Your task to perform on an android device: check out phone information Image 0: 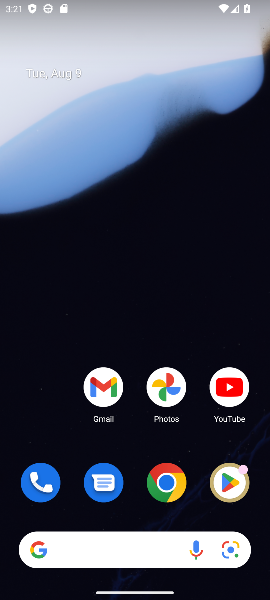
Step 0: drag from (152, 363) to (174, 85)
Your task to perform on an android device: check out phone information Image 1: 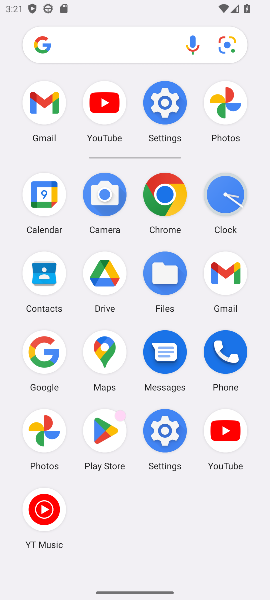
Step 1: click (175, 85)
Your task to perform on an android device: check out phone information Image 2: 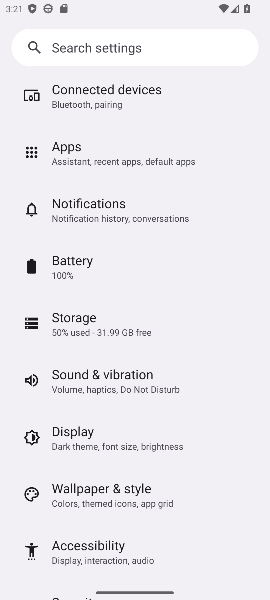
Step 2: drag from (136, 522) to (164, 177)
Your task to perform on an android device: check out phone information Image 3: 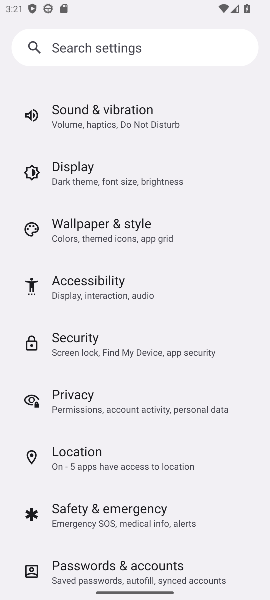
Step 3: drag from (139, 524) to (136, 49)
Your task to perform on an android device: check out phone information Image 4: 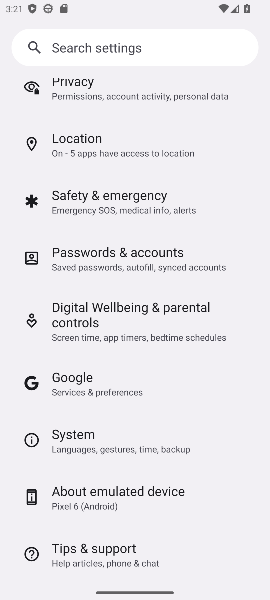
Step 4: drag from (107, 547) to (107, 222)
Your task to perform on an android device: check out phone information Image 5: 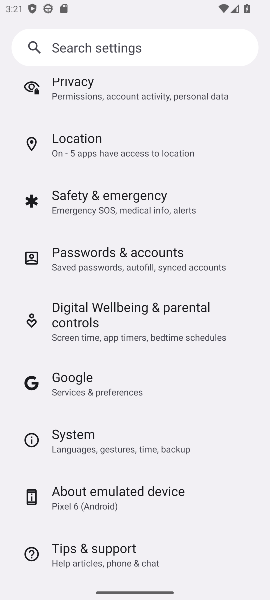
Step 5: click (126, 502)
Your task to perform on an android device: check out phone information Image 6: 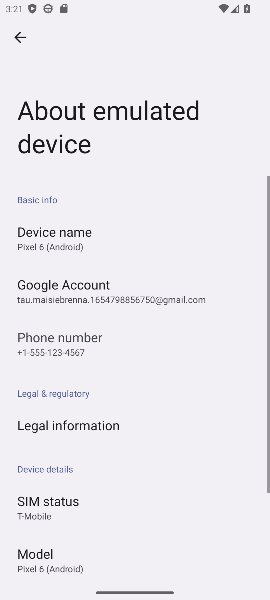
Step 6: drag from (128, 518) to (144, 105)
Your task to perform on an android device: check out phone information Image 7: 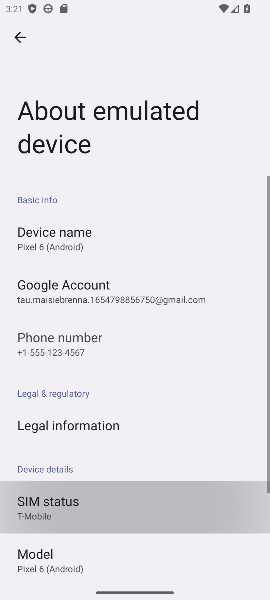
Step 7: drag from (150, 429) to (168, 185)
Your task to perform on an android device: check out phone information Image 8: 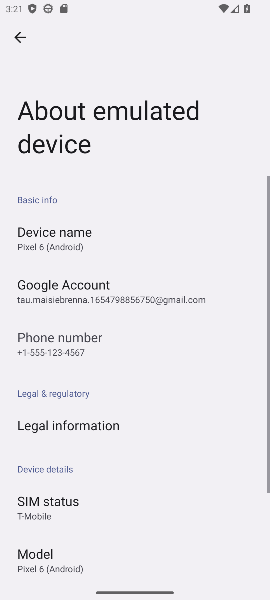
Step 8: click (130, 367)
Your task to perform on an android device: check out phone information Image 9: 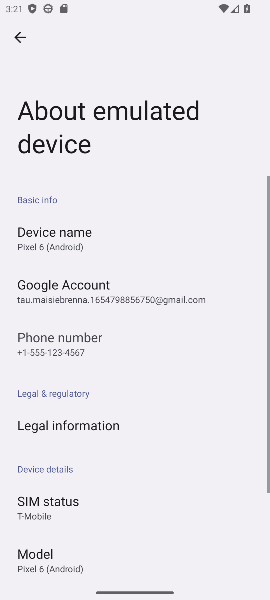
Step 9: task complete